Your task to perform on an android device: toggle sleep mode Image 0: 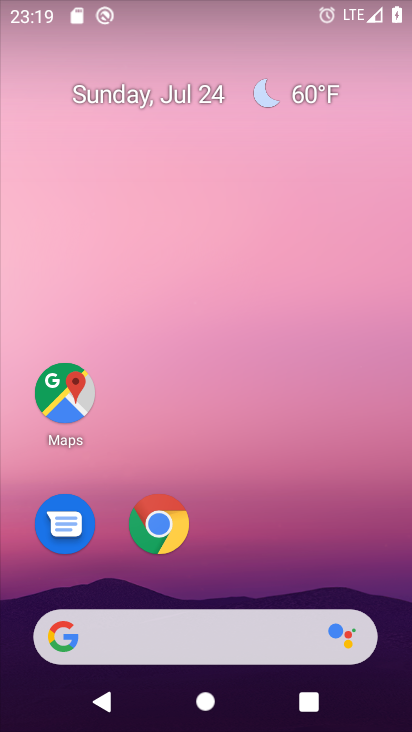
Step 0: drag from (254, 536) to (254, 47)
Your task to perform on an android device: toggle sleep mode Image 1: 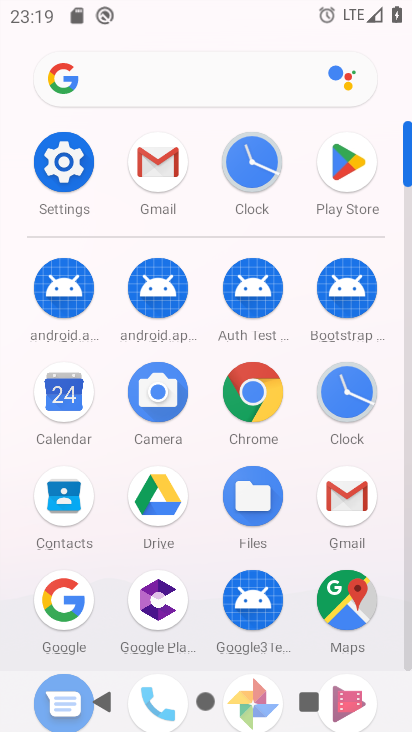
Step 1: click (76, 160)
Your task to perform on an android device: toggle sleep mode Image 2: 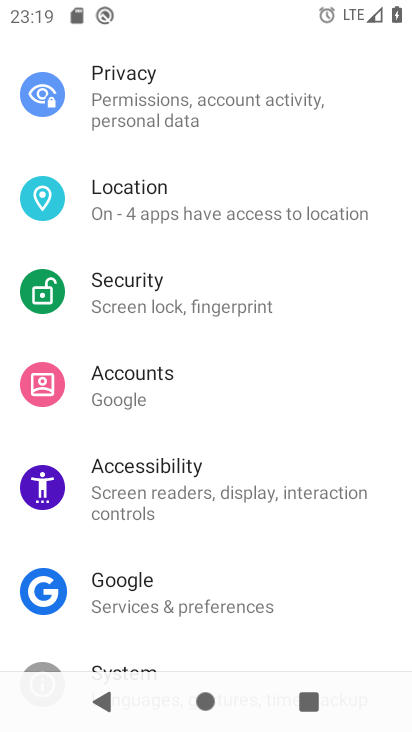
Step 2: drag from (239, 154) to (270, 603)
Your task to perform on an android device: toggle sleep mode Image 3: 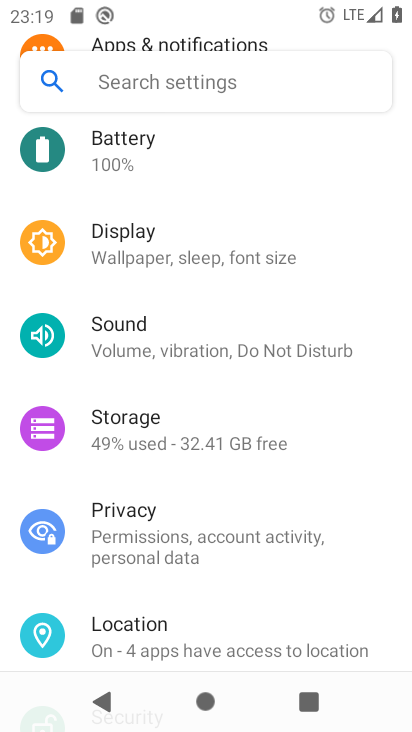
Step 3: click (207, 249)
Your task to perform on an android device: toggle sleep mode Image 4: 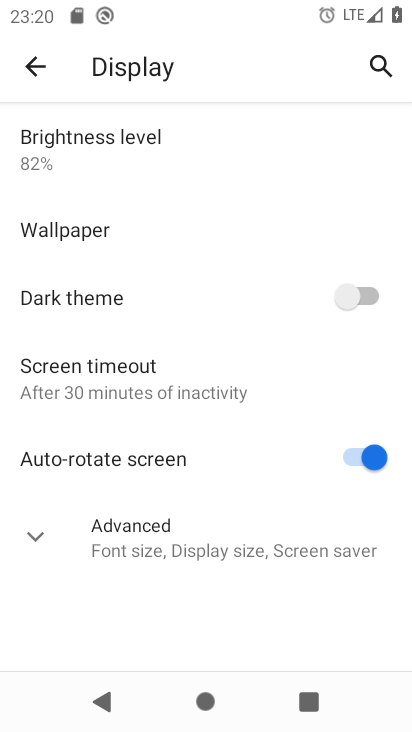
Step 4: click (38, 534)
Your task to perform on an android device: toggle sleep mode Image 5: 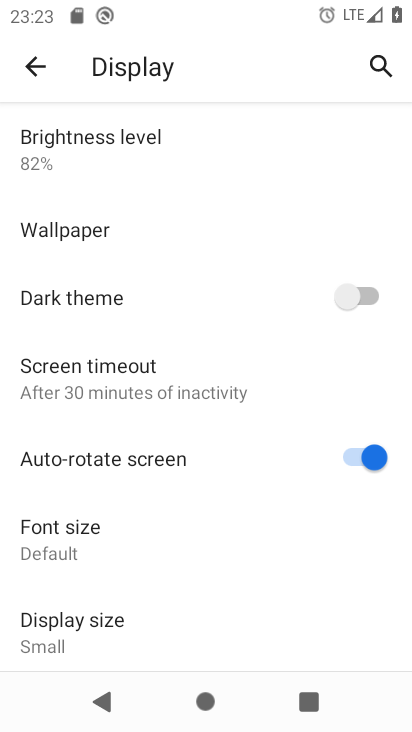
Step 5: task complete